Your task to perform on an android device: install app "Google Maps" Image 0: 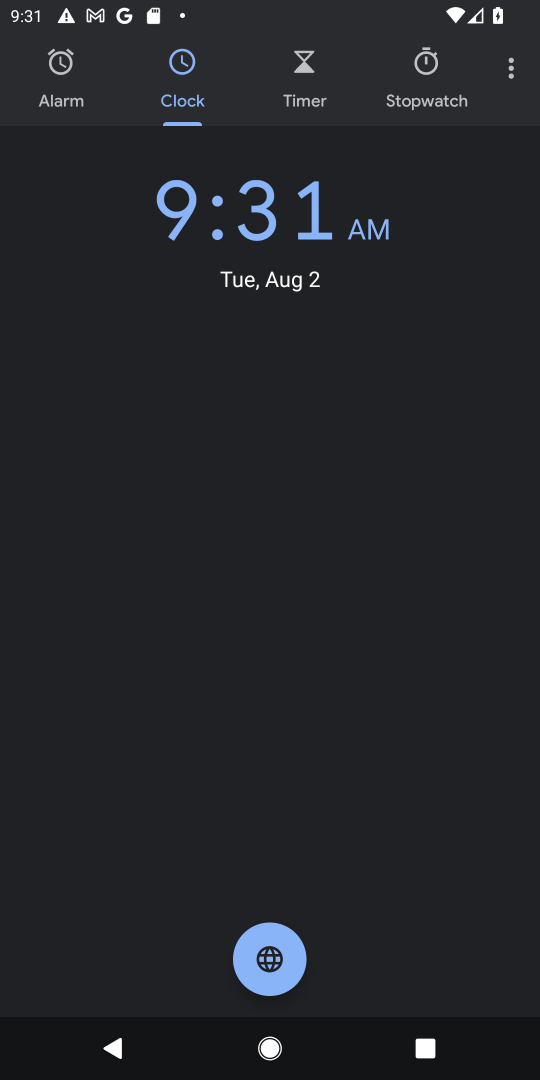
Step 0: press home button
Your task to perform on an android device: install app "Google Maps" Image 1: 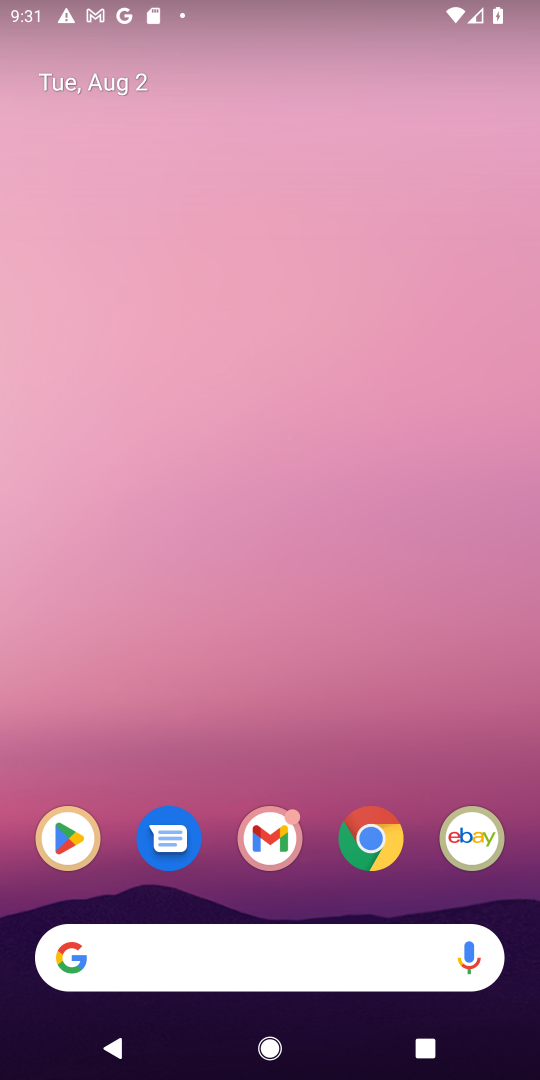
Step 1: drag from (326, 646) to (334, 40)
Your task to perform on an android device: install app "Google Maps" Image 2: 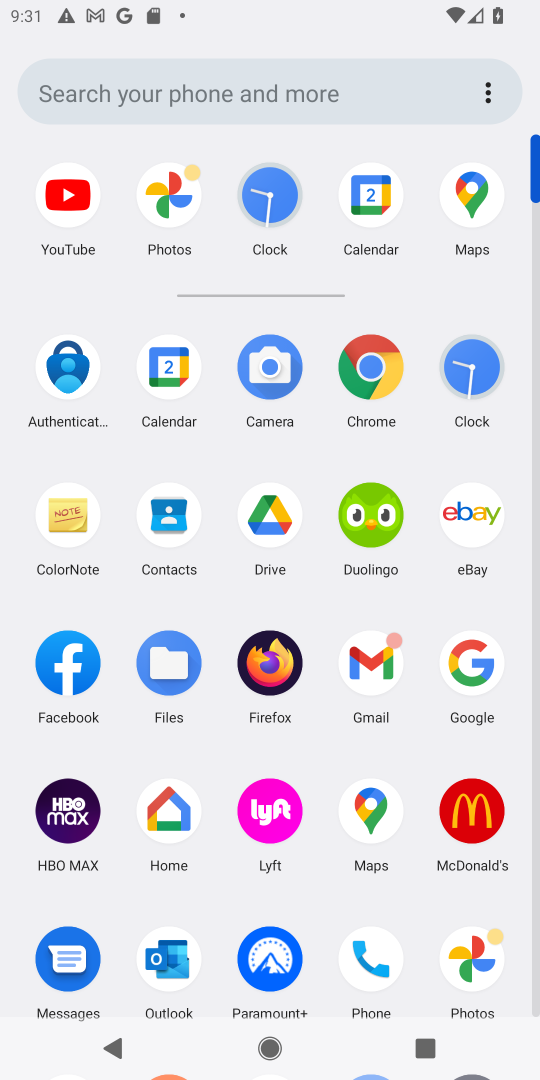
Step 2: drag from (513, 727) to (512, 366)
Your task to perform on an android device: install app "Google Maps" Image 3: 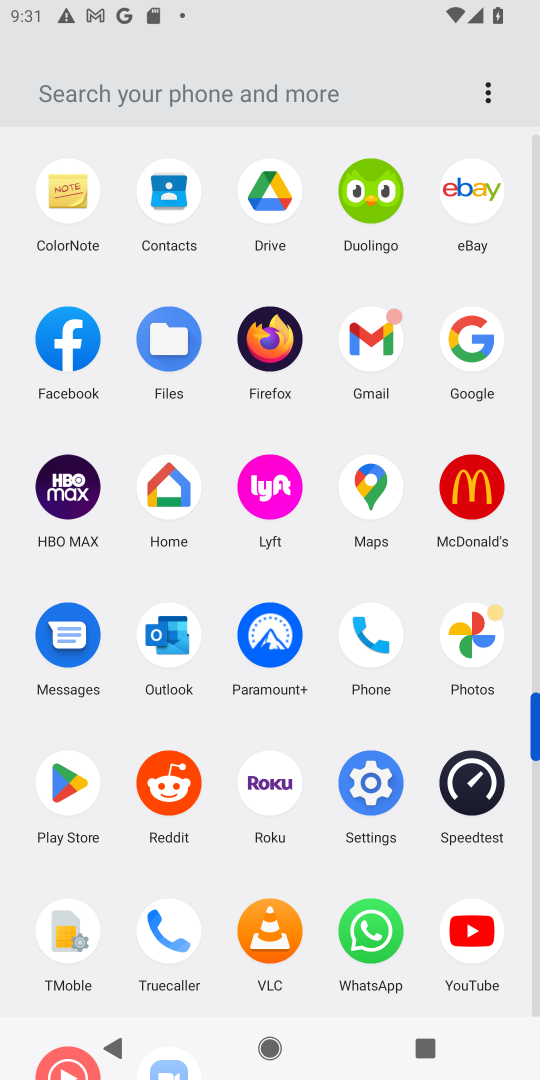
Step 3: click (67, 787)
Your task to perform on an android device: install app "Google Maps" Image 4: 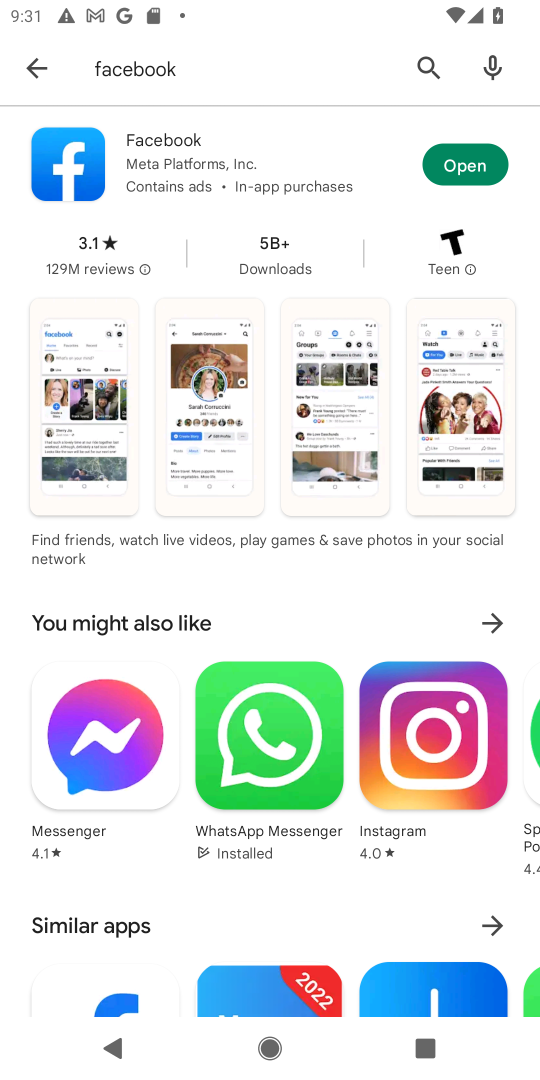
Step 4: click (421, 59)
Your task to perform on an android device: install app "Google Maps" Image 5: 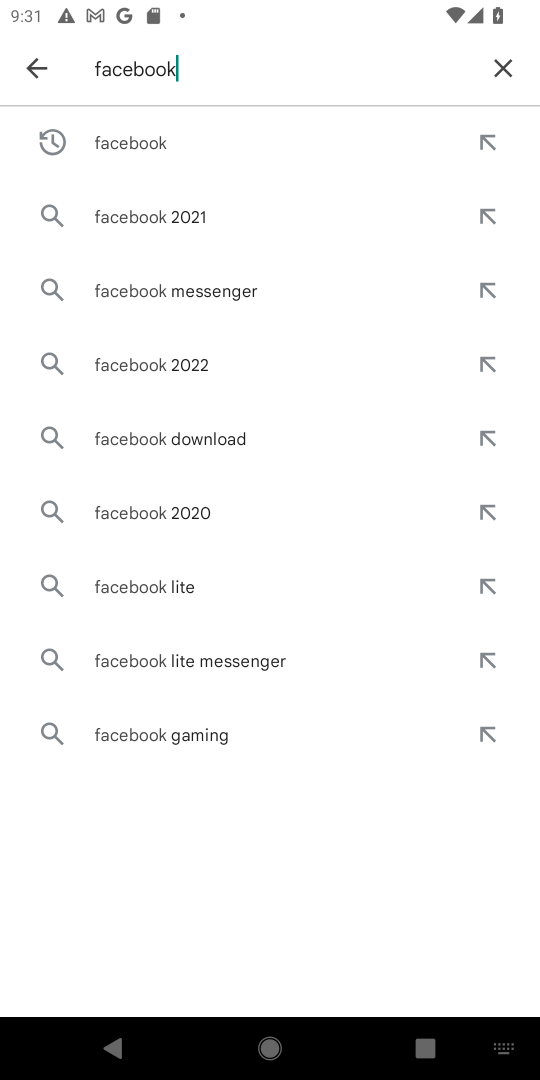
Step 5: click (498, 63)
Your task to perform on an android device: install app "Google Maps" Image 6: 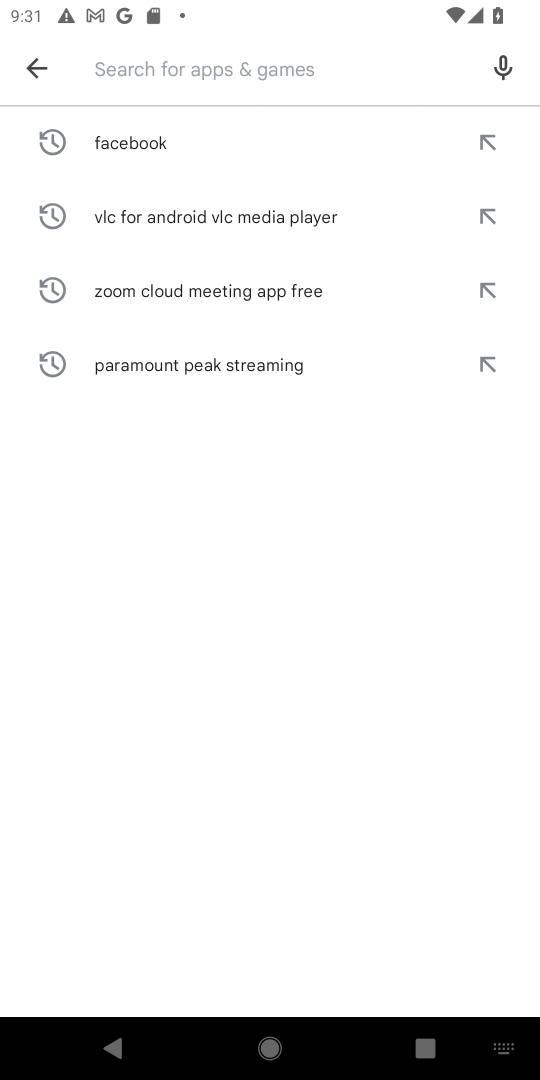
Step 6: click (292, 72)
Your task to perform on an android device: install app "Google Maps" Image 7: 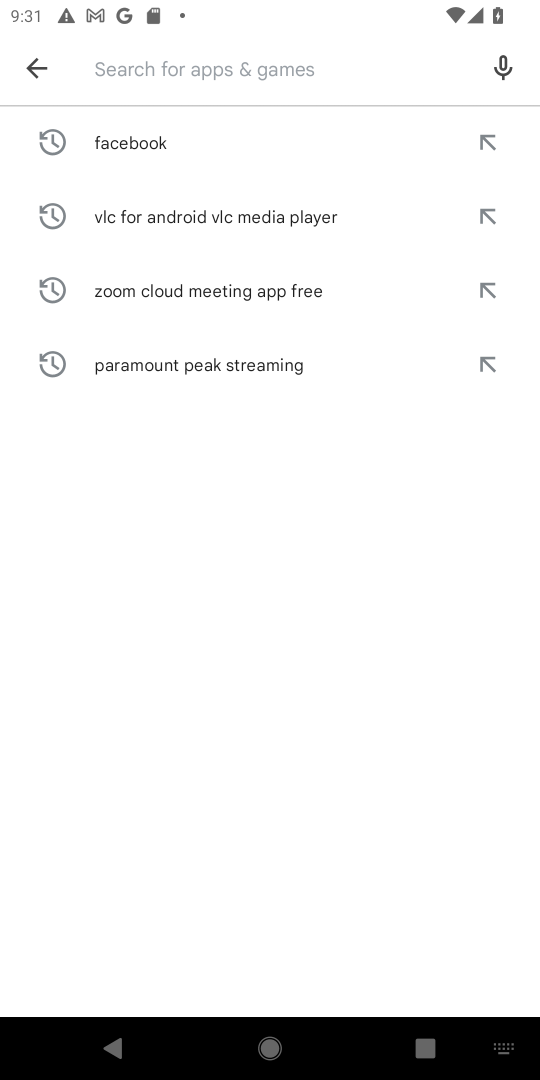
Step 7: type "google maps"
Your task to perform on an android device: install app "Google Maps" Image 8: 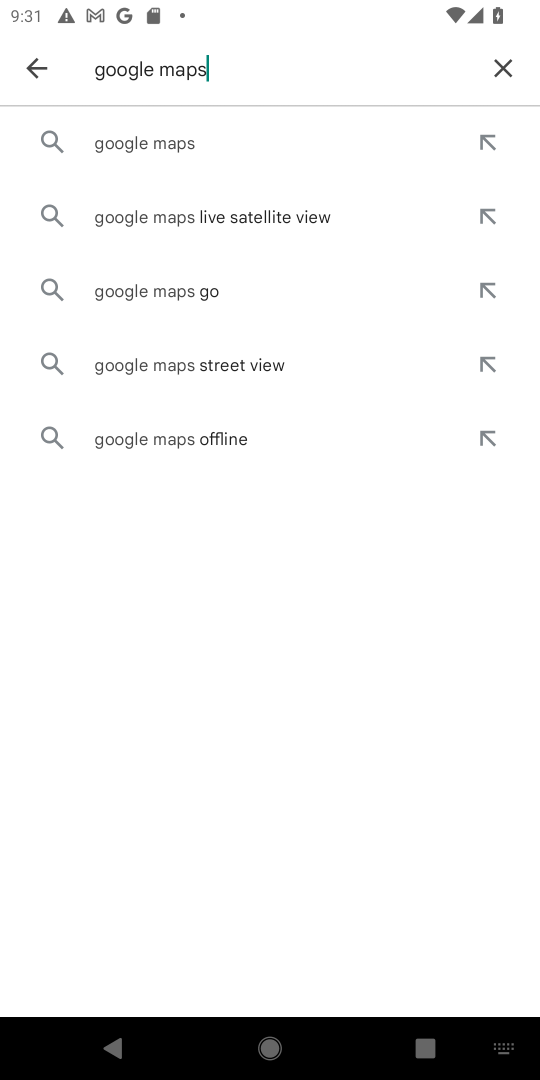
Step 8: click (245, 139)
Your task to perform on an android device: install app "Google Maps" Image 9: 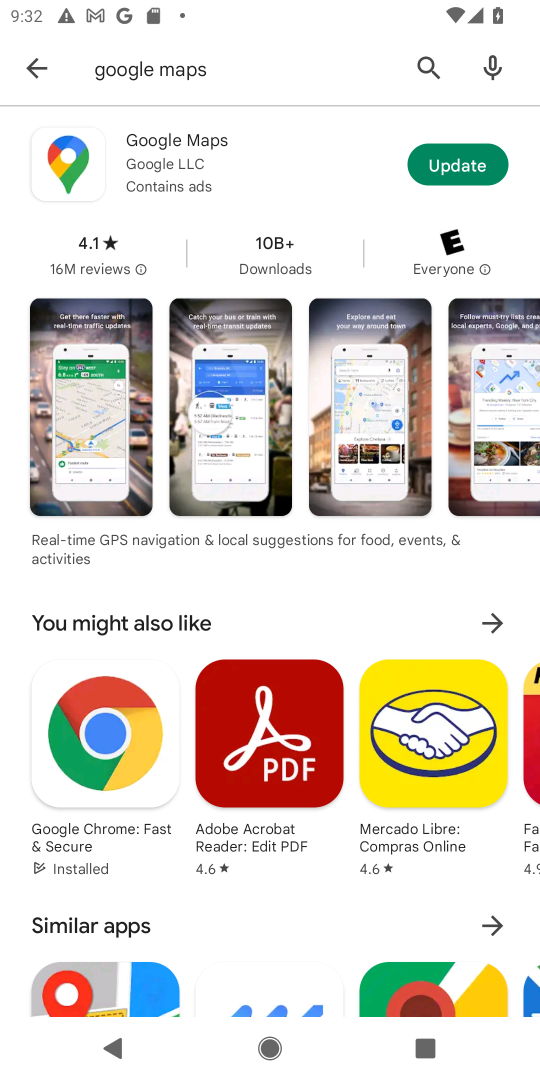
Step 9: task complete